Your task to perform on an android device: Open battery settings Image 0: 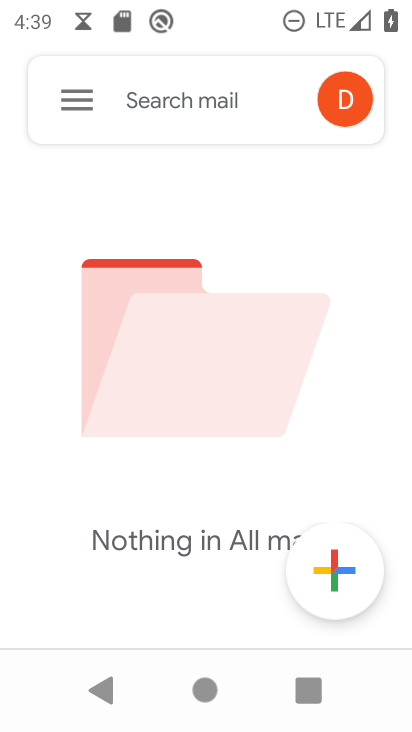
Step 0: press home button
Your task to perform on an android device: Open battery settings Image 1: 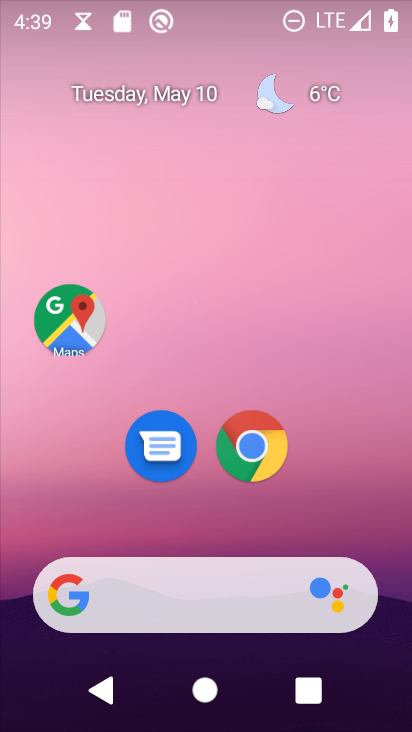
Step 1: drag from (323, 501) to (219, 114)
Your task to perform on an android device: Open battery settings Image 2: 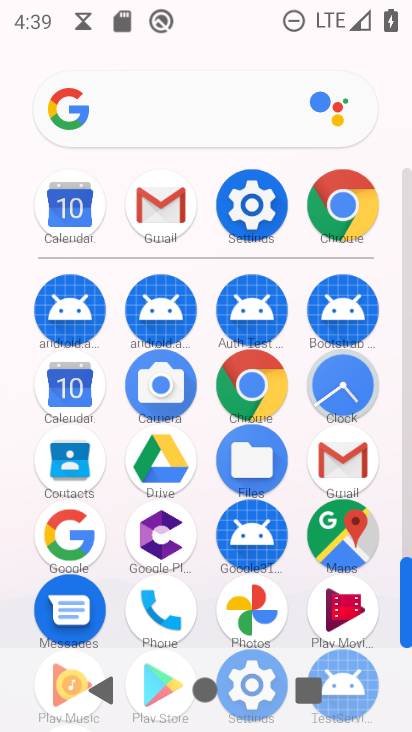
Step 2: click (244, 191)
Your task to perform on an android device: Open battery settings Image 3: 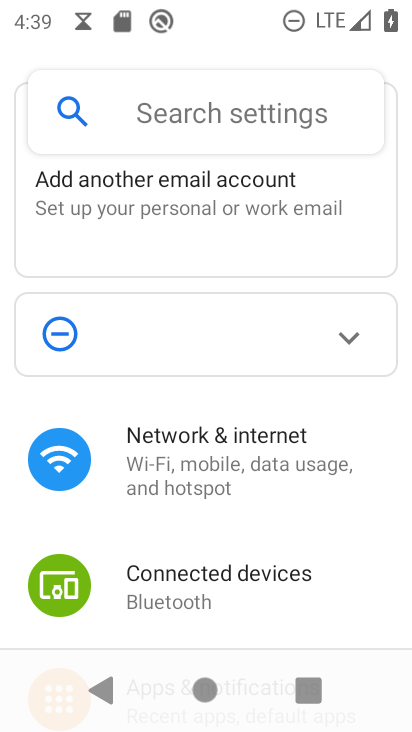
Step 3: drag from (260, 564) to (224, 128)
Your task to perform on an android device: Open battery settings Image 4: 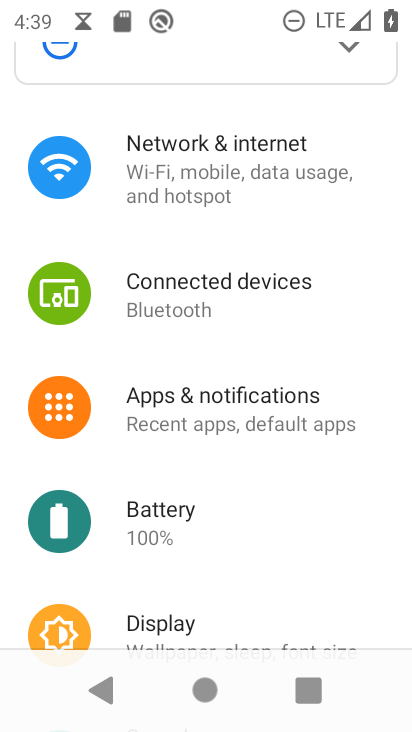
Step 4: click (196, 511)
Your task to perform on an android device: Open battery settings Image 5: 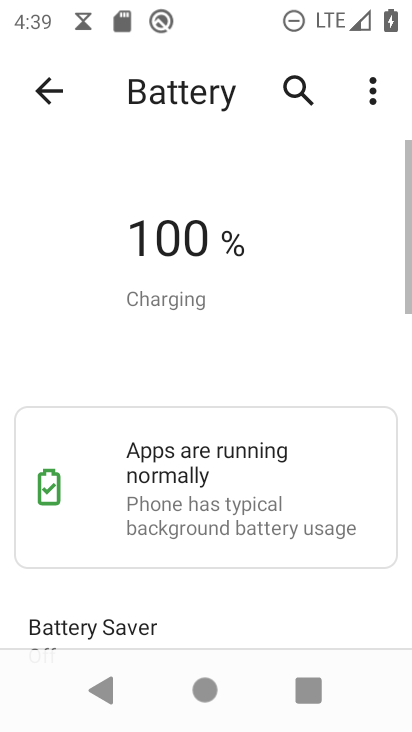
Step 5: task complete